Your task to perform on an android device: Open Amazon Image 0: 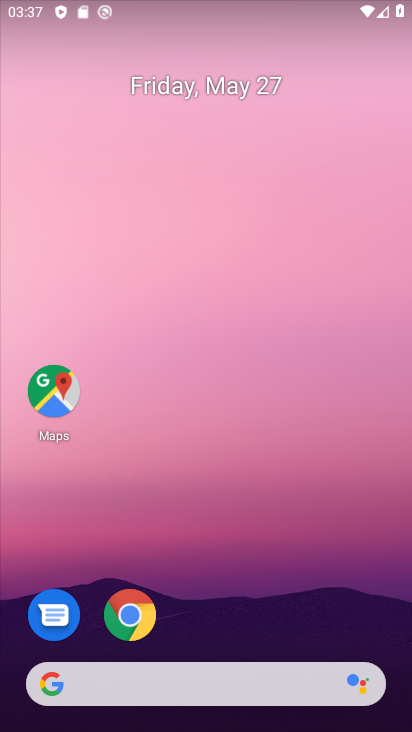
Step 0: click (134, 624)
Your task to perform on an android device: Open Amazon Image 1: 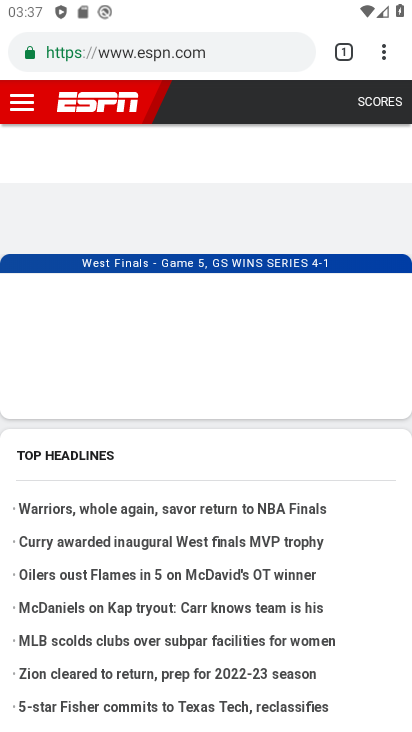
Step 1: click (351, 65)
Your task to perform on an android device: Open Amazon Image 2: 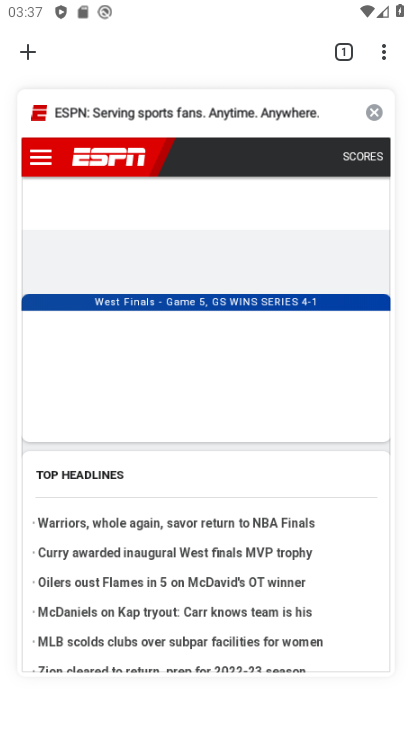
Step 2: click (382, 113)
Your task to perform on an android device: Open Amazon Image 3: 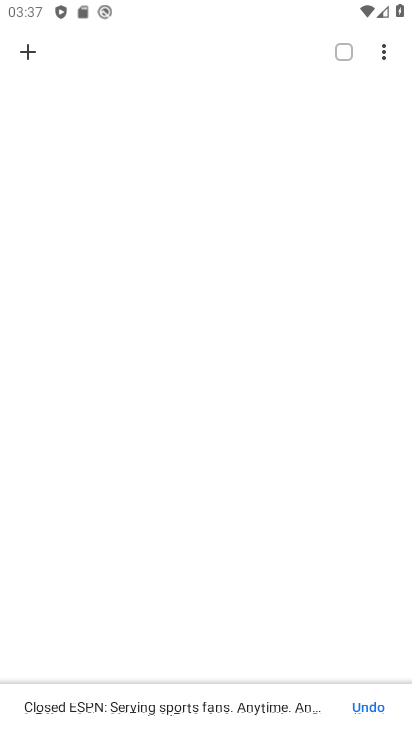
Step 3: click (25, 57)
Your task to perform on an android device: Open Amazon Image 4: 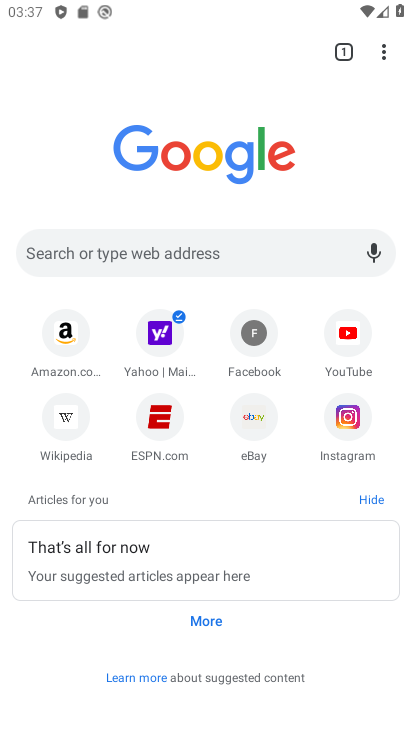
Step 4: click (67, 335)
Your task to perform on an android device: Open Amazon Image 5: 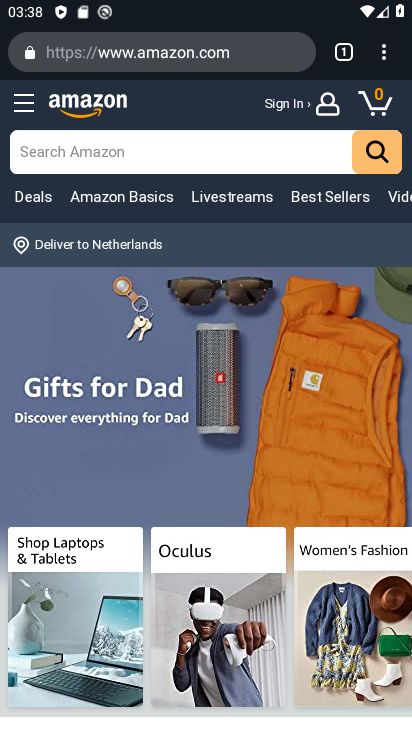
Step 5: task complete